Your task to perform on an android device: Open sound settings Image 0: 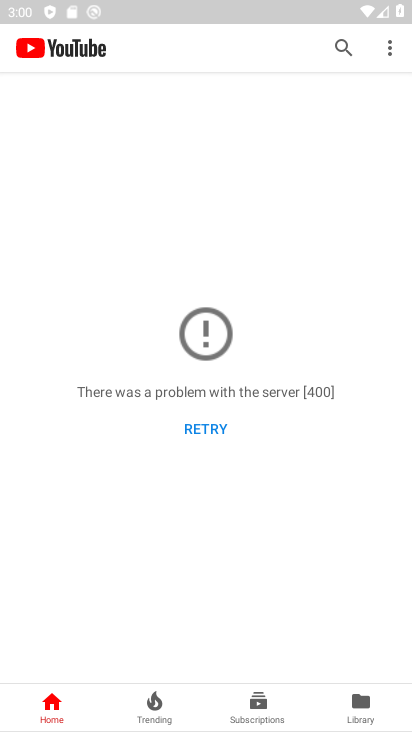
Step 0: press home button
Your task to perform on an android device: Open sound settings Image 1: 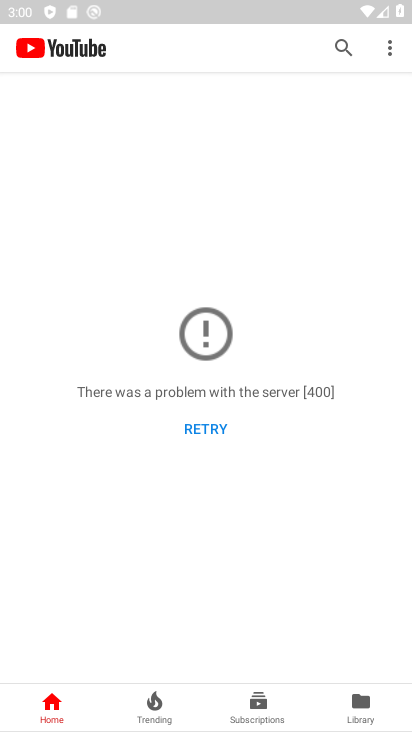
Step 1: press home button
Your task to perform on an android device: Open sound settings Image 2: 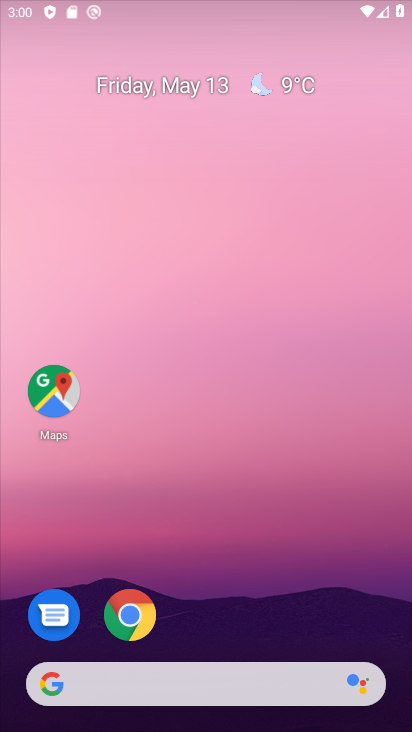
Step 2: press home button
Your task to perform on an android device: Open sound settings Image 3: 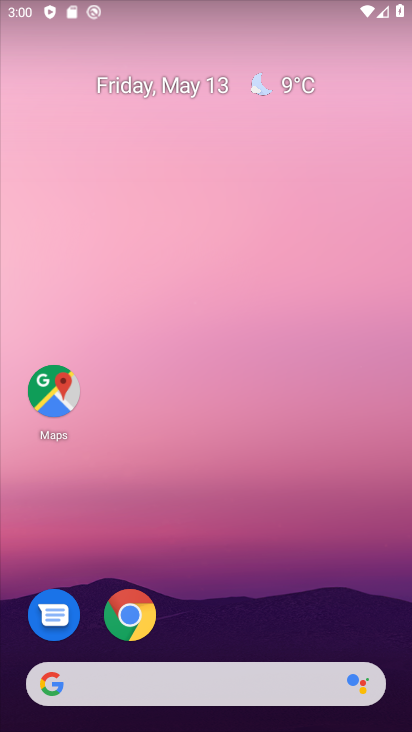
Step 3: press home button
Your task to perform on an android device: Open sound settings Image 4: 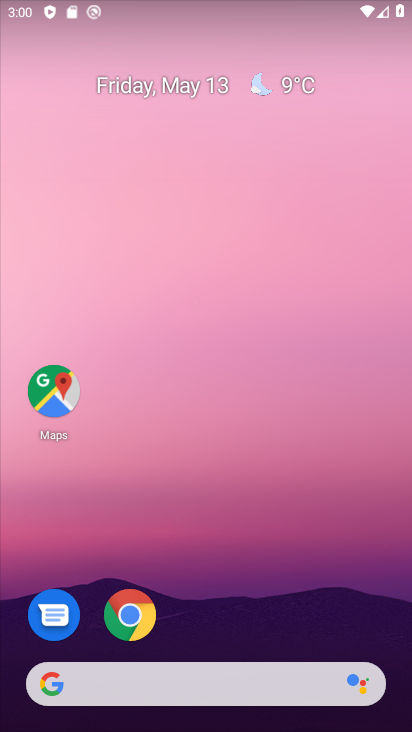
Step 4: drag from (322, 600) to (141, 73)
Your task to perform on an android device: Open sound settings Image 5: 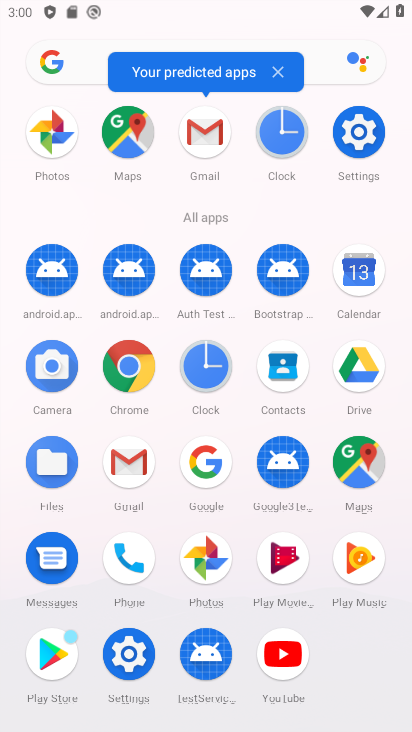
Step 5: click (347, 140)
Your task to perform on an android device: Open sound settings Image 6: 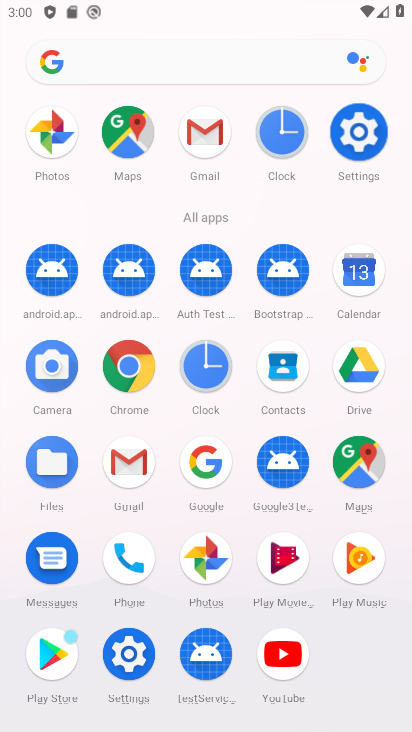
Step 6: click (351, 130)
Your task to perform on an android device: Open sound settings Image 7: 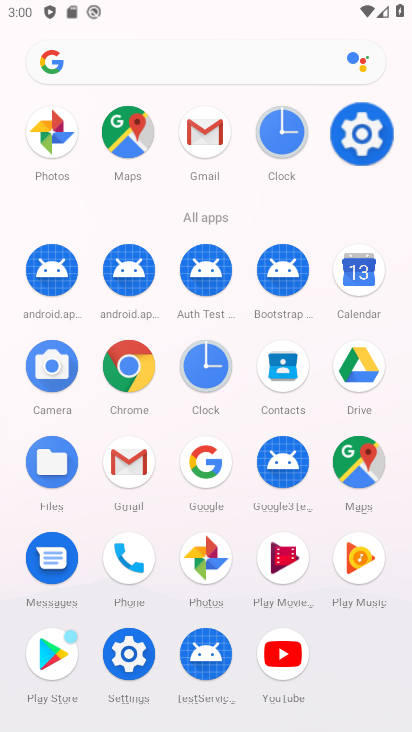
Step 7: click (367, 128)
Your task to perform on an android device: Open sound settings Image 8: 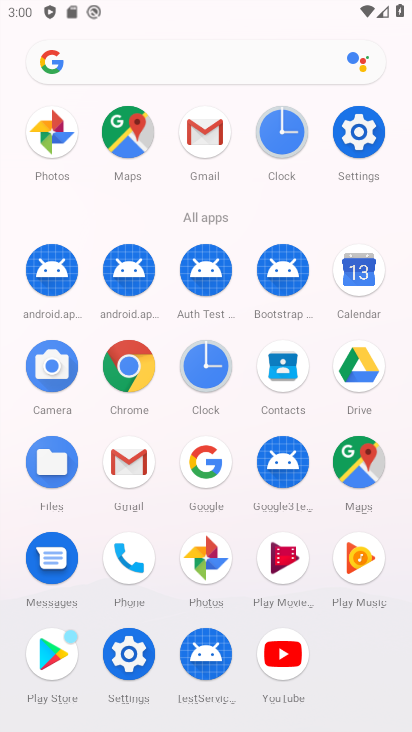
Step 8: click (371, 126)
Your task to perform on an android device: Open sound settings Image 9: 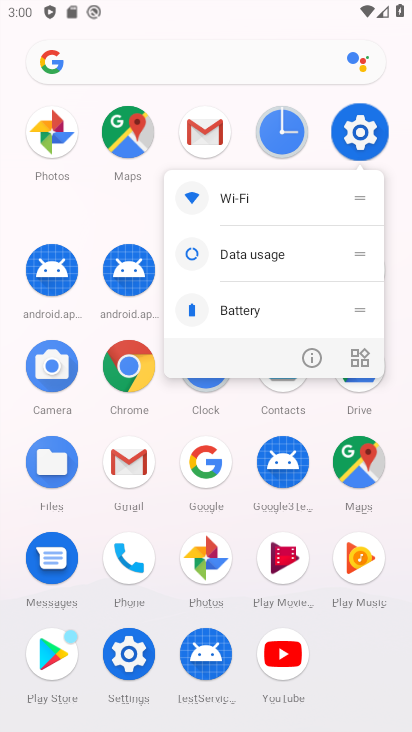
Step 9: click (358, 135)
Your task to perform on an android device: Open sound settings Image 10: 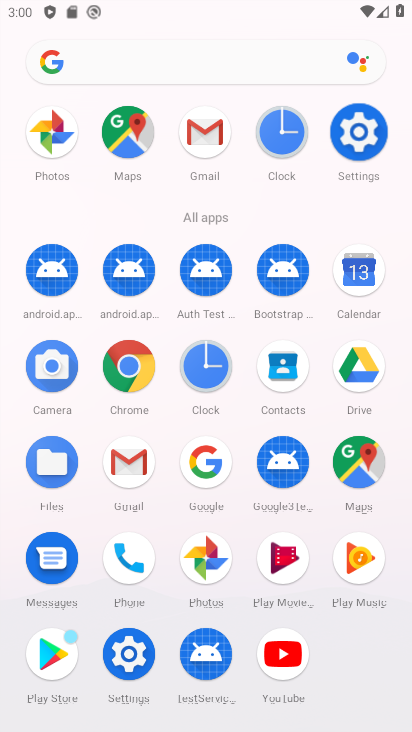
Step 10: click (355, 133)
Your task to perform on an android device: Open sound settings Image 11: 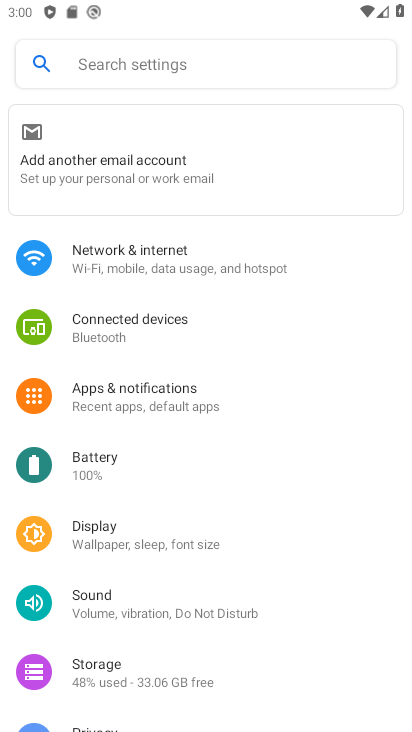
Step 11: click (100, 606)
Your task to perform on an android device: Open sound settings Image 12: 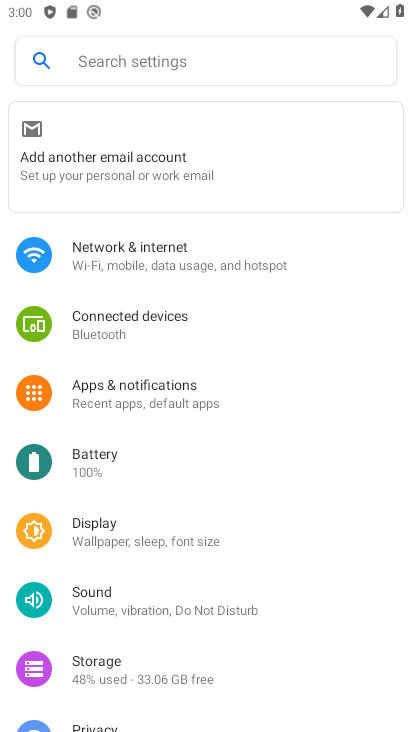
Step 12: click (143, 602)
Your task to perform on an android device: Open sound settings Image 13: 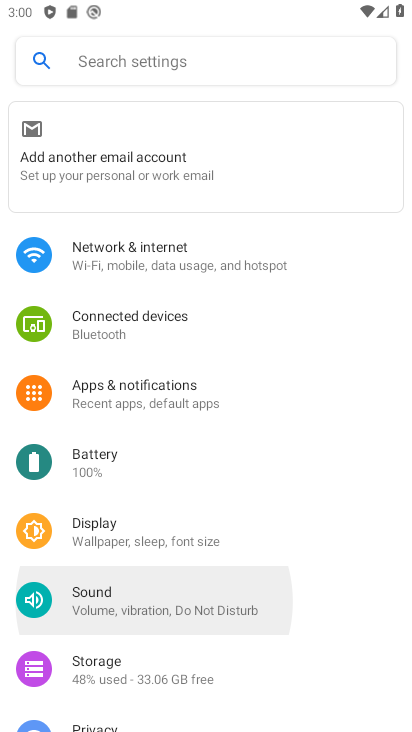
Step 13: task complete